Your task to perform on an android device: Open display settings Image 0: 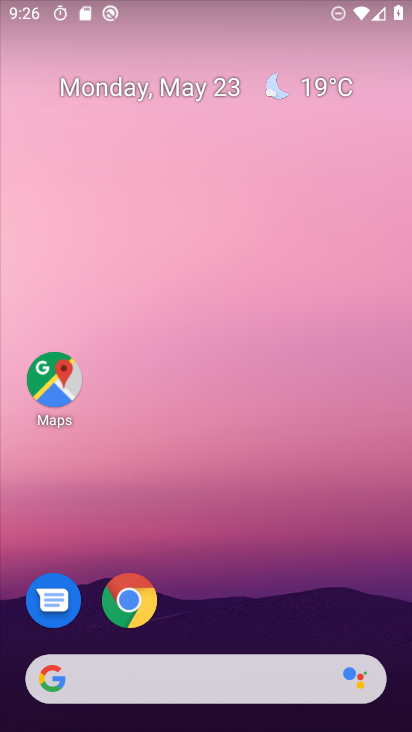
Step 0: press home button
Your task to perform on an android device: Open display settings Image 1: 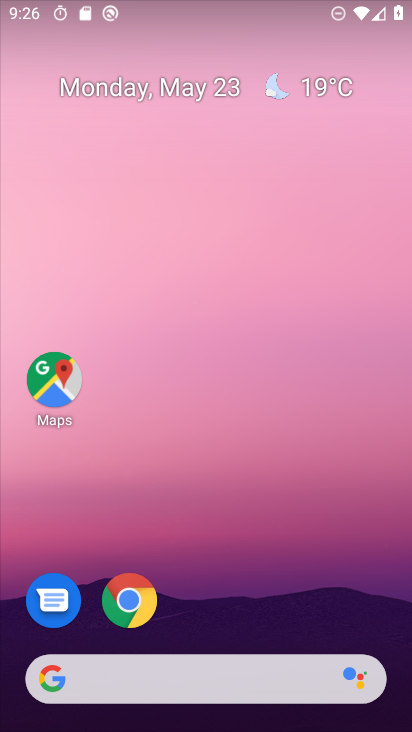
Step 1: drag from (20, 644) to (214, 149)
Your task to perform on an android device: Open display settings Image 2: 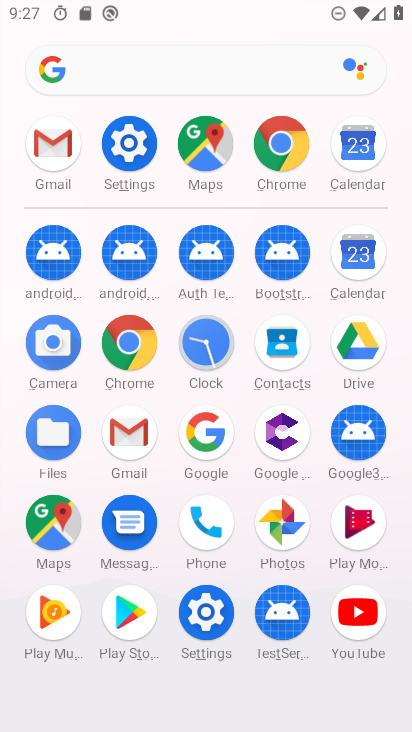
Step 2: click (132, 144)
Your task to perform on an android device: Open display settings Image 3: 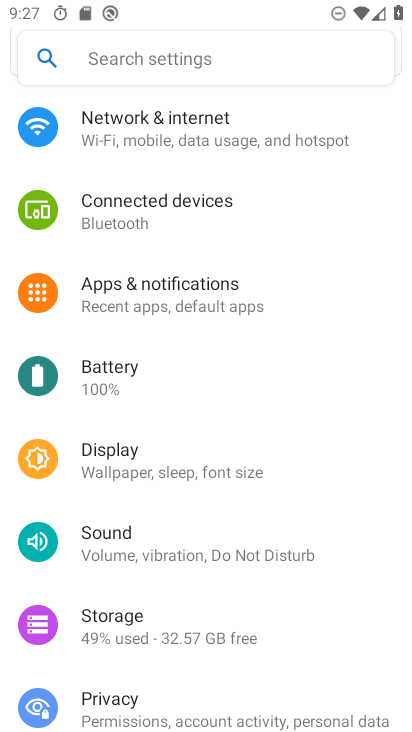
Step 3: drag from (134, 93) to (74, 543)
Your task to perform on an android device: Open display settings Image 4: 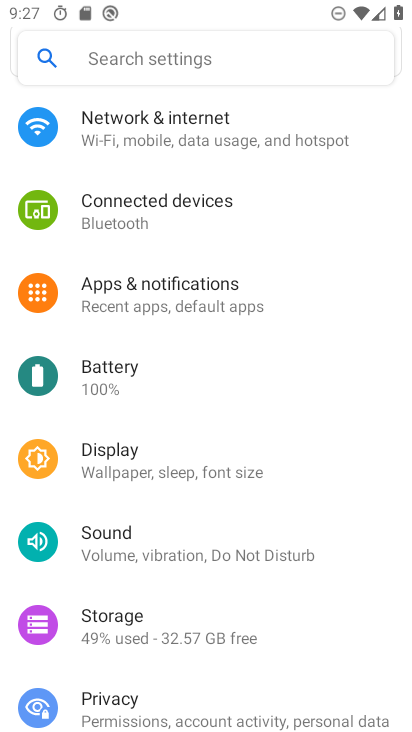
Step 4: drag from (221, 99) to (176, 522)
Your task to perform on an android device: Open display settings Image 5: 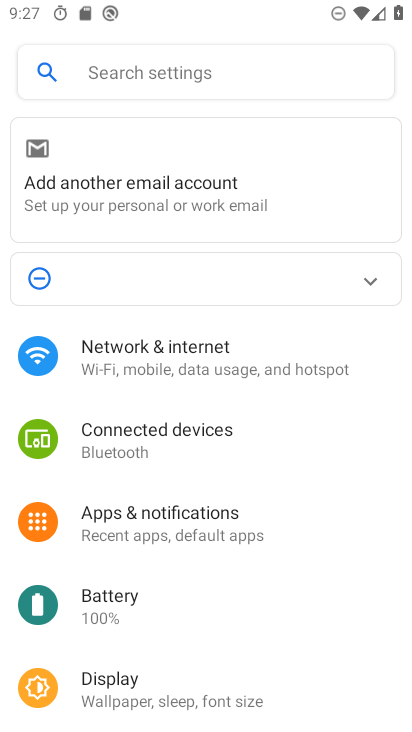
Step 5: drag from (16, 613) to (236, 105)
Your task to perform on an android device: Open display settings Image 6: 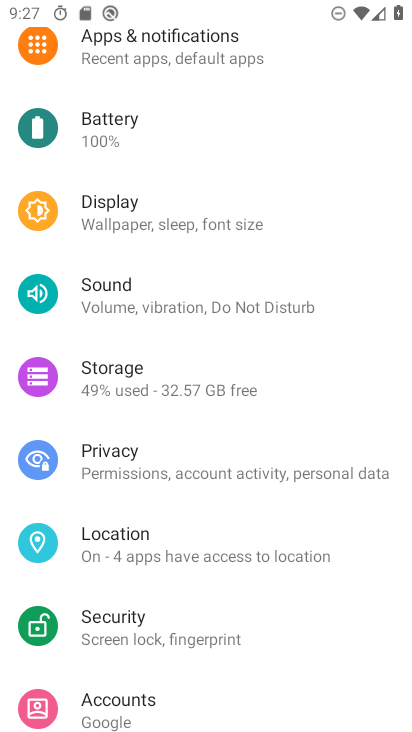
Step 6: click (94, 213)
Your task to perform on an android device: Open display settings Image 7: 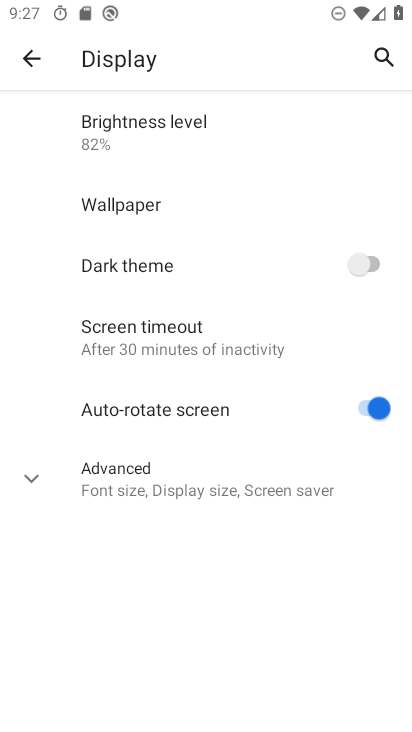
Step 7: task complete